Your task to perform on an android device: create a new album in the google photos Image 0: 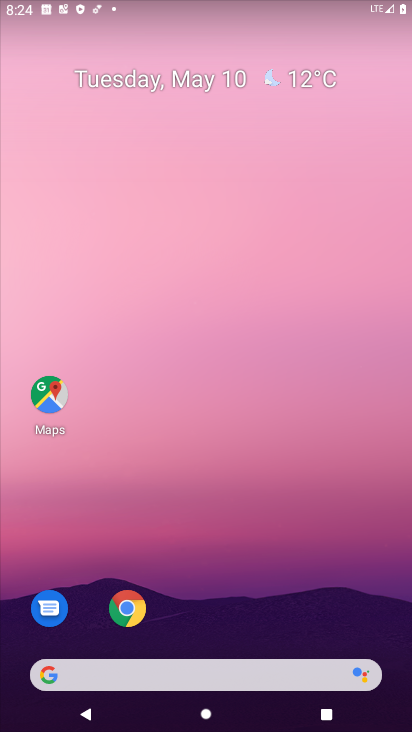
Step 0: press home button
Your task to perform on an android device: create a new album in the google photos Image 1: 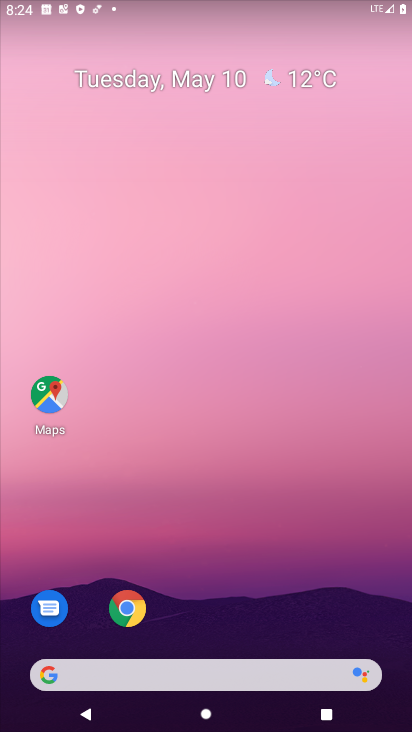
Step 1: drag from (135, 673) to (292, 139)
Your task to perform on an android device: create a new album in the google photos Image 2: 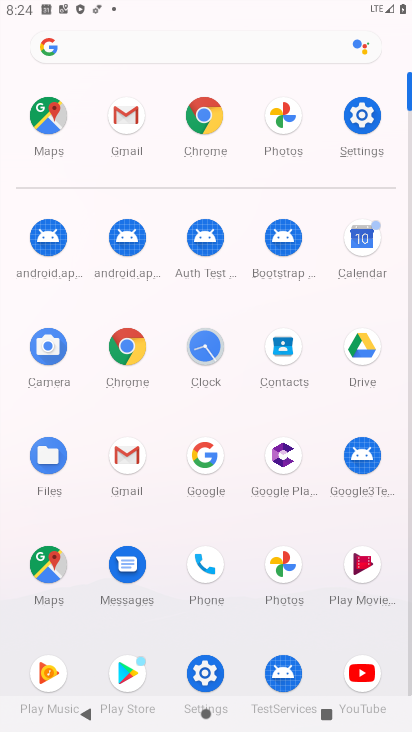
Step 2: click (284, 555)
Your task to perform on an android device: create a new album in the google photos Image 3: 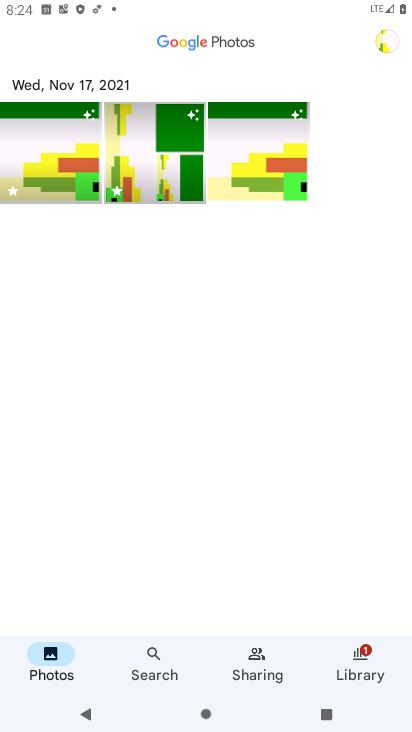
Step 3: click (356, 668)
Your task to perform on an android device: create a new album in the google photos Image 4: 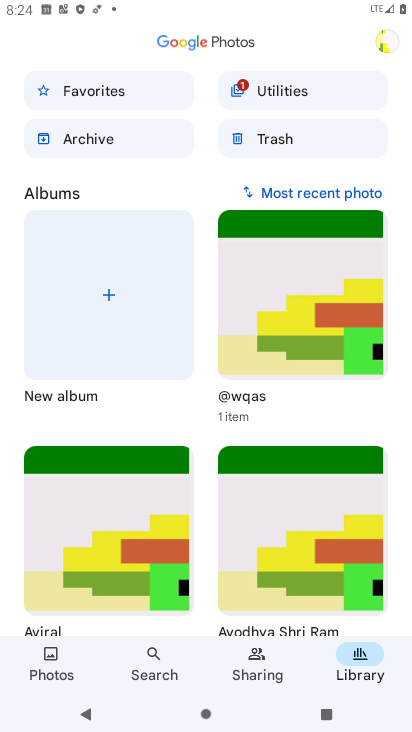
Step 4: click (104, 294)
Your task to perform on an android device: create a new album in the google photos Image 5: 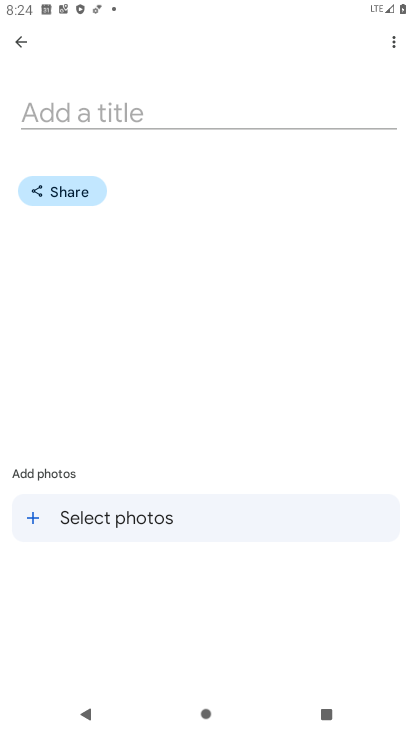
Step 5: click (104, 519)
Your task to perform on an android device: create a new album in the google photos Image 6: 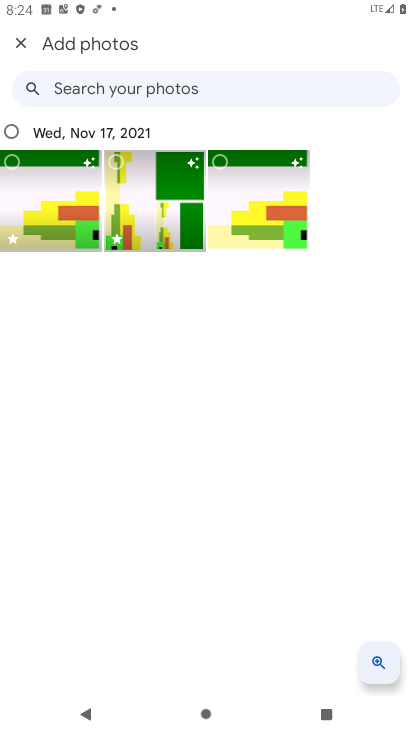
Step 6: click (60, 218)
Your task to perform on an android device: create a new album in the google photos Image 7: 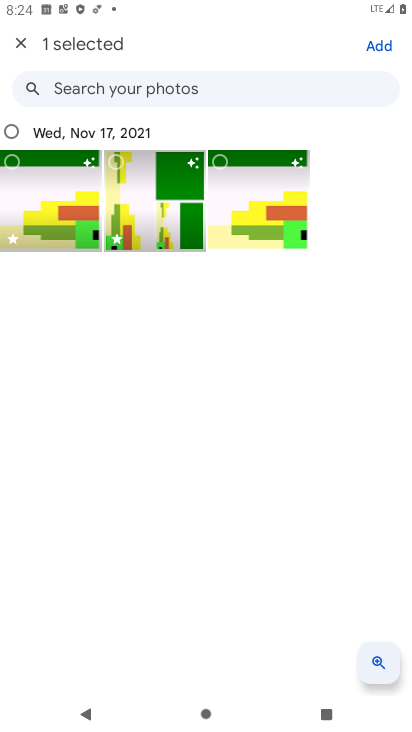
Step 7: click (110, 228)
Your task to perform on an android device: create a new album in the google photos Image 8: 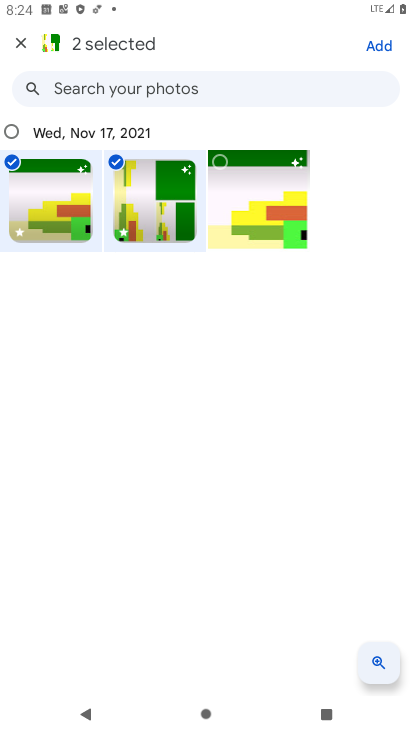
Step 8: click (387, 45)
Your task to perform on an android device: create a new album in the google photos Image 9: 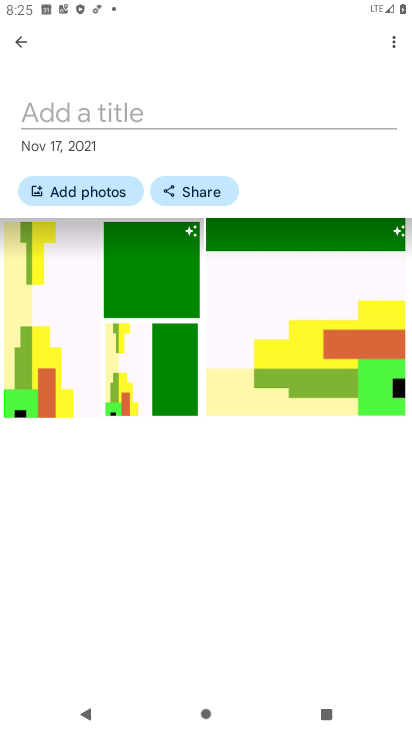
Step 9: task complete